Your task to perform on an android device: open wifi settings Image 0: 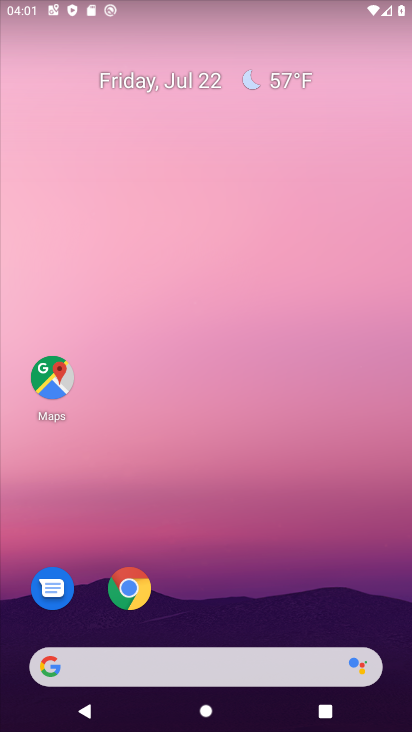
Step 0: drag from (208, 632) to (166, 72)
Your task to perform on an android device: open wifi settings Image 1: 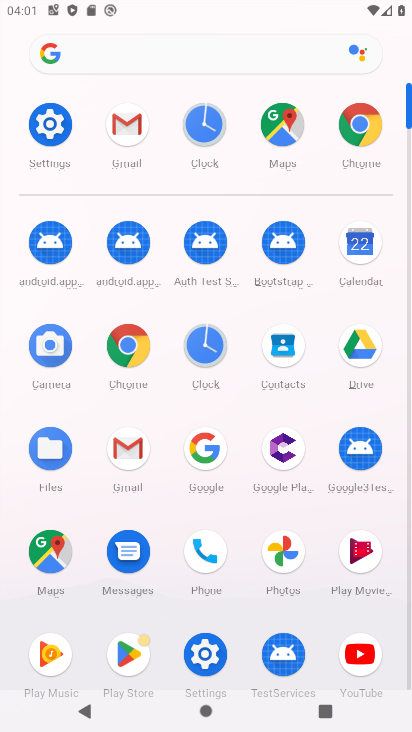
Step 1: click (41, 125)
Your task to perform on an android device: open wifi settings Image 2: 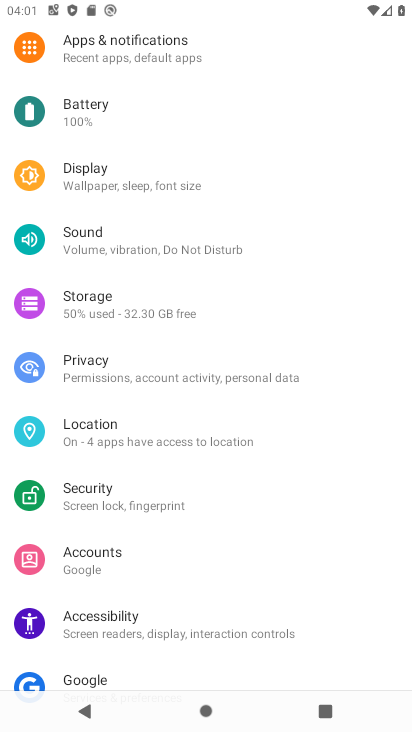
Step 2: drag from (149, 150) to (144, 497)
Your task to perform on an android device: open wifi settings Image 3: 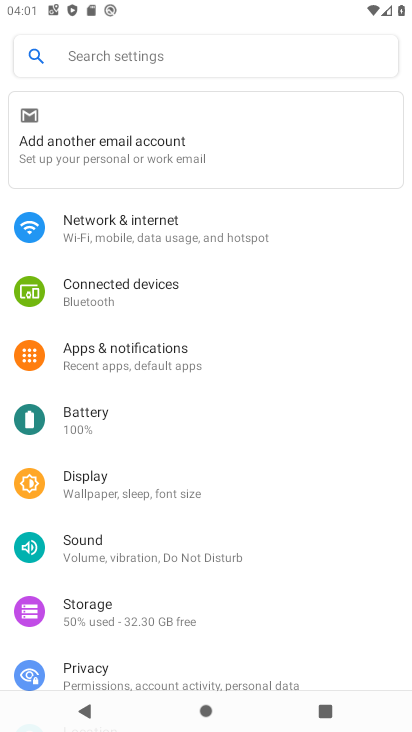
Step 3: click (115, 220)
Your task to perform on an android device: open wifi settings Image 4: 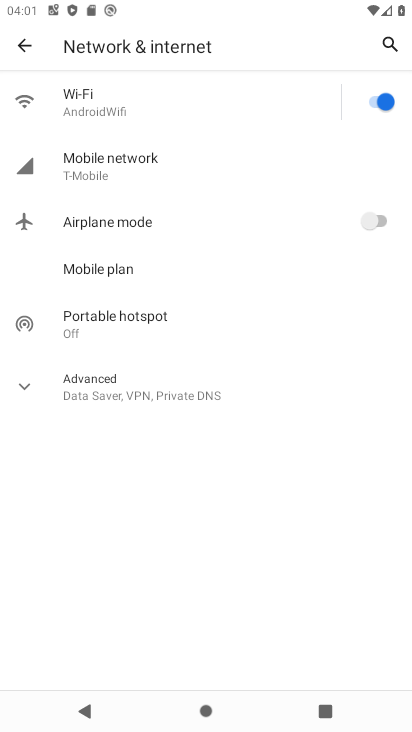
Step 4: click (89, 114)
Your task to perform on an android device: open wifi settings Image 5: 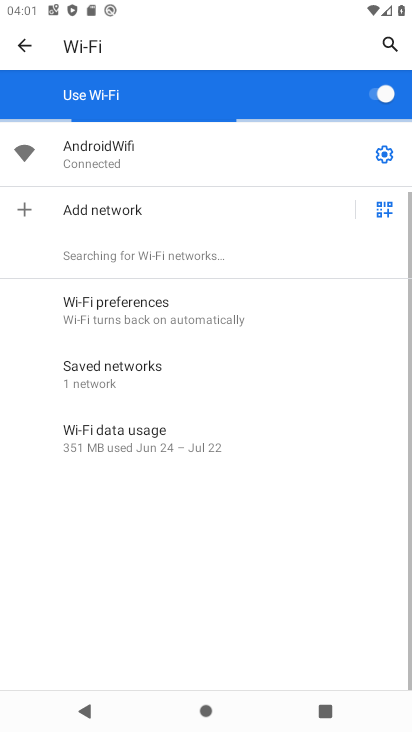
Step 5: task complete